Your task to perform on an android device: toggle show notifications on the lock screen Image 0: 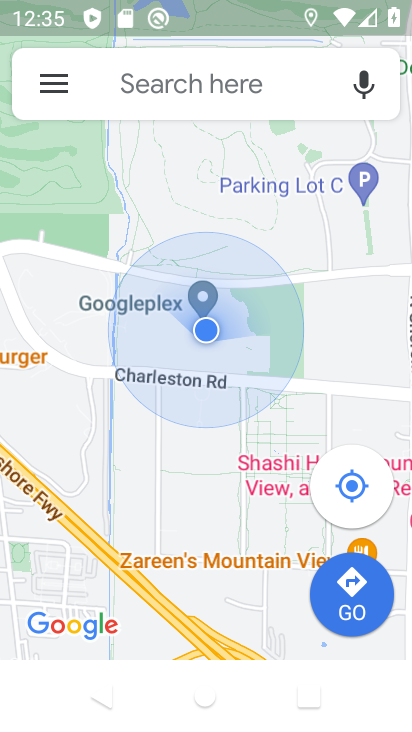
Step 0: press home button
Your task to perform on an android device: toggle show notifications on the lock screen Image 1: 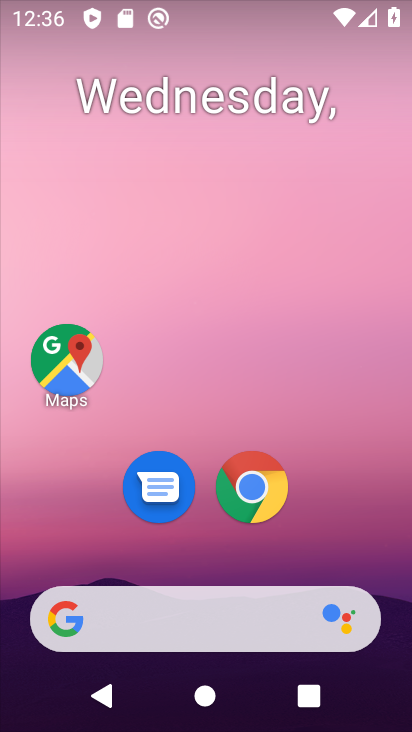
Step 1: drag from (187, 547) to (169, 1)
Your task to perform on an android device: toggle show notifications on the lock screen Image 2: 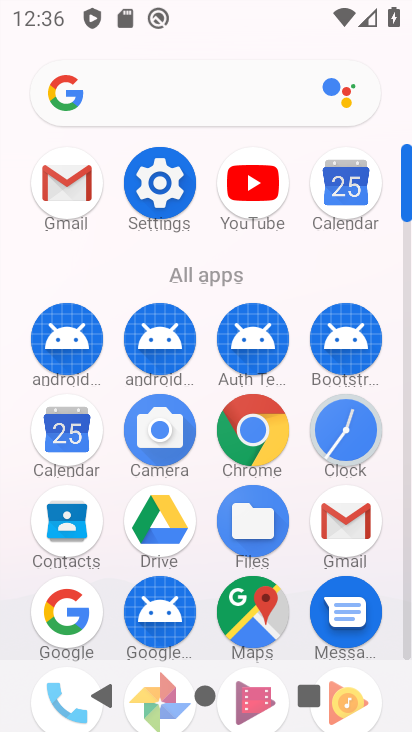
Step 2: click (163, 199)
Your task to perform on an android device: toggle show notifications on the lock screen Image 3: 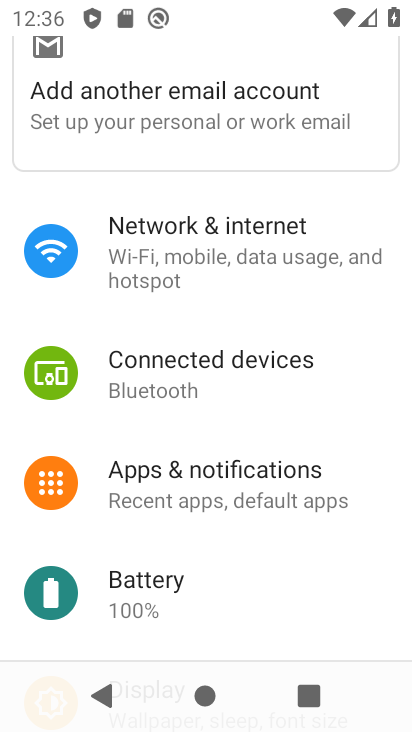
Step 3: click (183, 498)
Your task to perform on an android device: toggle show notifications on the lock screen Image 4: 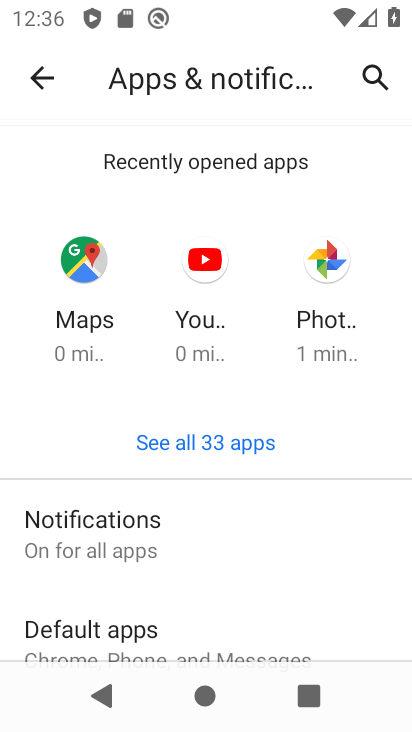
Step 4: click (120, 568)
Your task to perform on an android device: toggle show notifications on the lock screen Image 5: 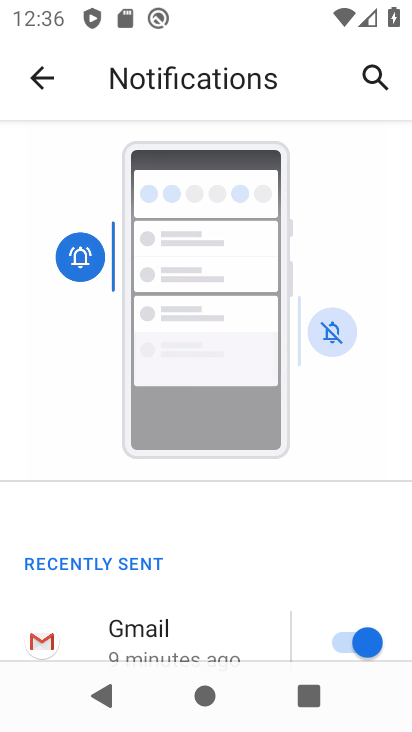
Step 5: drag from (174, 606) to (228, 243)
Your task to perform on an android device: toggle show notifications on the lock screen Image 6: 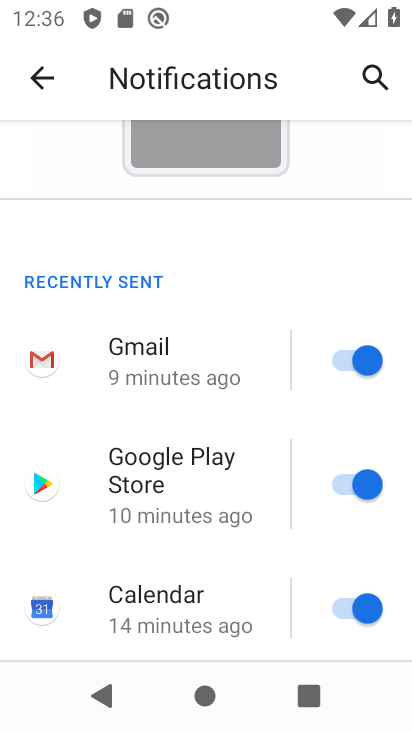
Step 6: drag from (174, 564) to (212, 260)
Your task to perform on an android device: toggle show notifications on the lock screen Image 7: 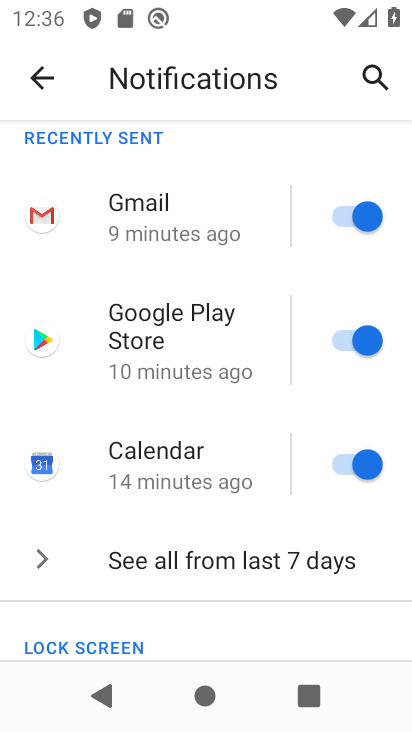
Step 7: drag from (168, 626) to (207, 289)
Your task to perform on an android device: toggle show notifications on the lock screen Image 8: 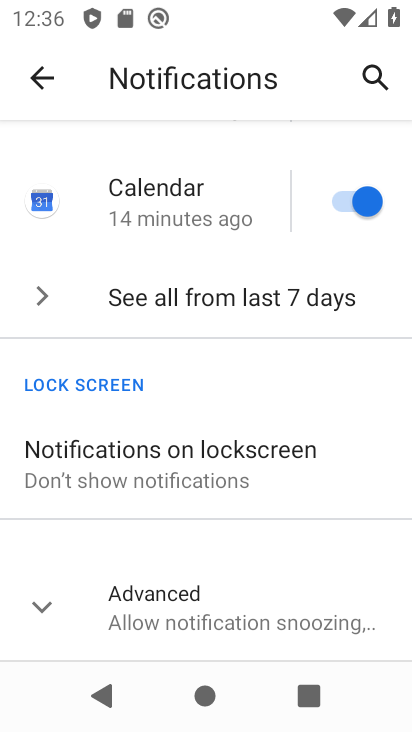
Step 8: click (121, 476)
Your task to perform on an android device: toggle show notifications on the lock screen Image 9: 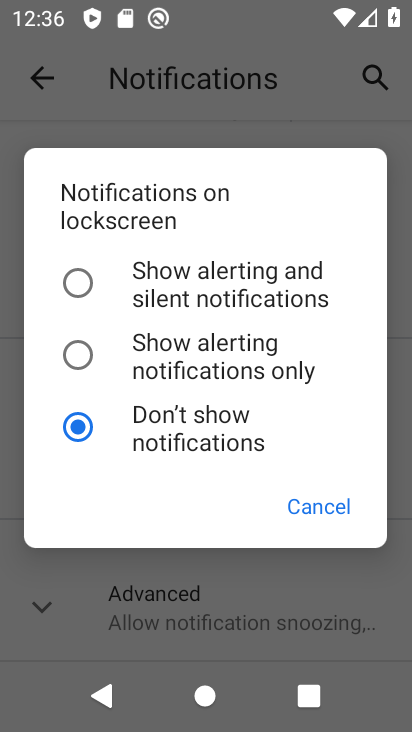
Step 9: click (89, 281)
Your task to perform on an android device: toggle show notifications on the lock screen Image 10: 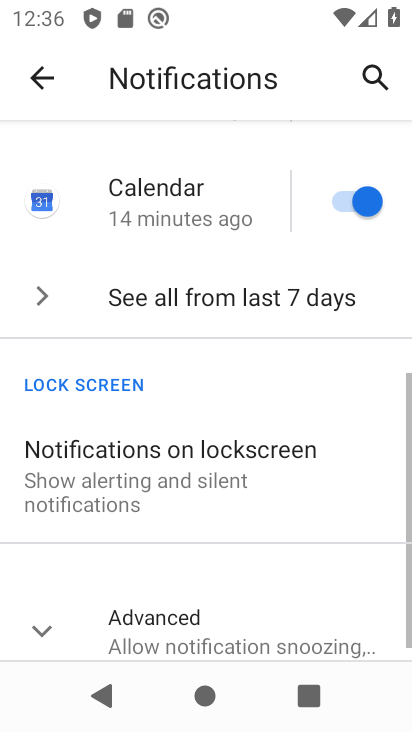
Step 10: task complete